Your task to perform on an android device: Open settings on Google Maps Image 0: 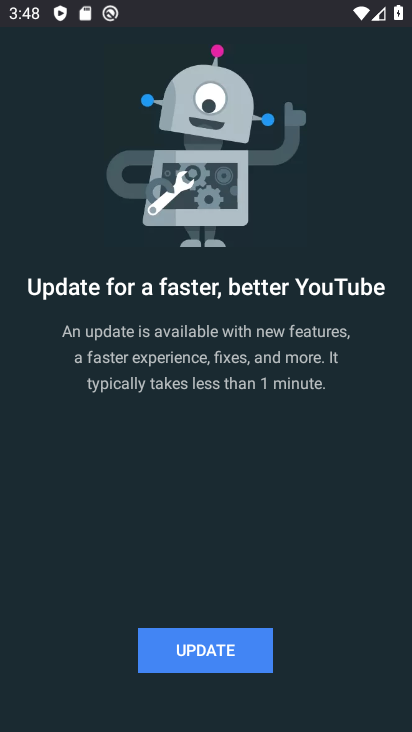
Step 0: press home button
Your task to perform on an android device: Open settings on Google Maps Image 1: 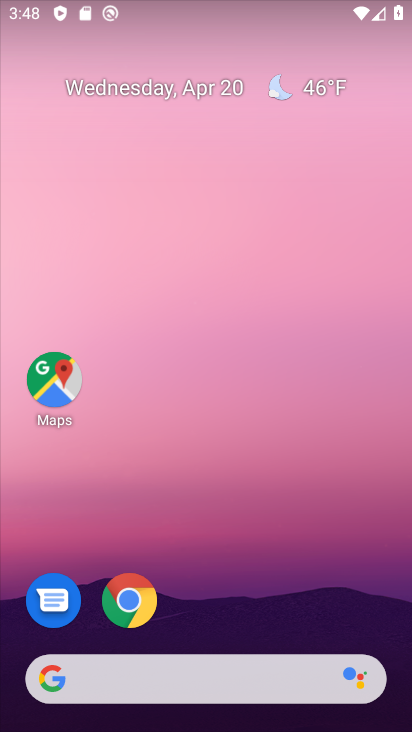
Step 1: click (53, 395)
Your task to perform on an android device: Open settings on Google Maps Image 2: 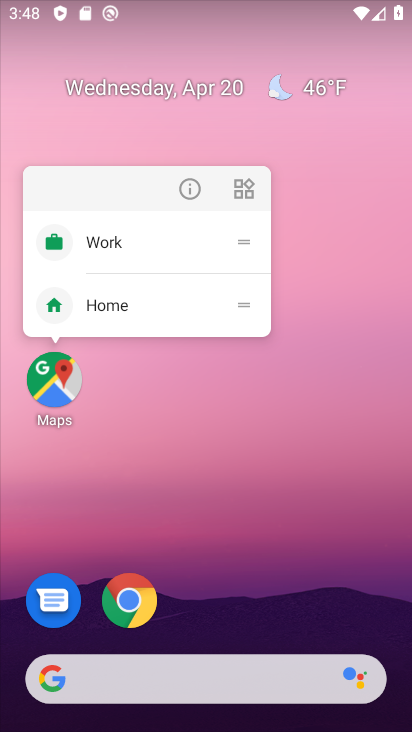
Step 2: click (62, 392)
Your task to perform on an android device: Open settings on Google Maps Image 3: 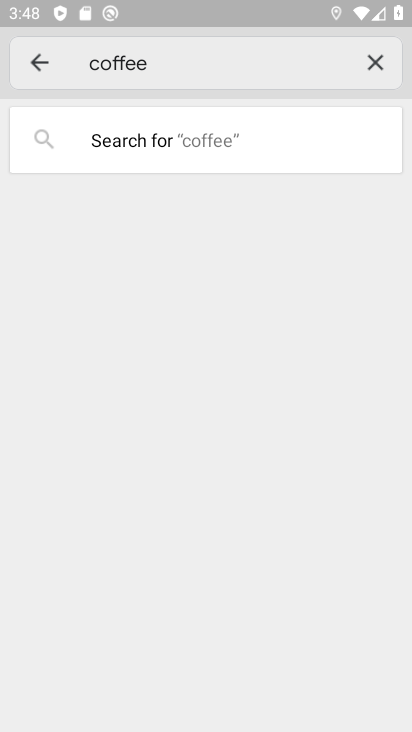
Step 3: click (375, 61)
Your task to perform on an android device: Open settings on Google Maps Image 4: 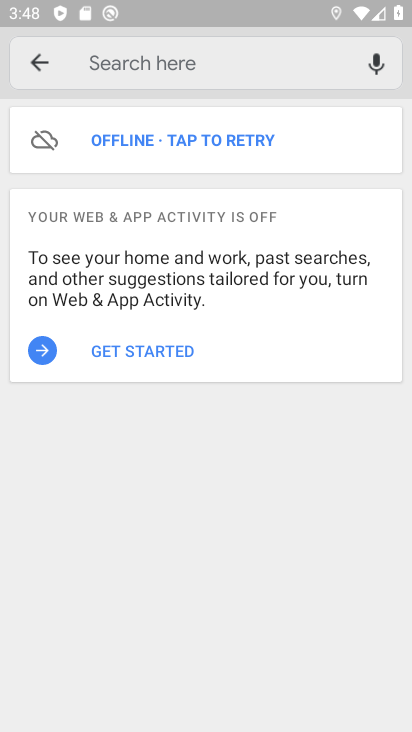
Step 4: click (39, 63)
Your task to perform on an android device: Open settings on Google Maps Image 5: 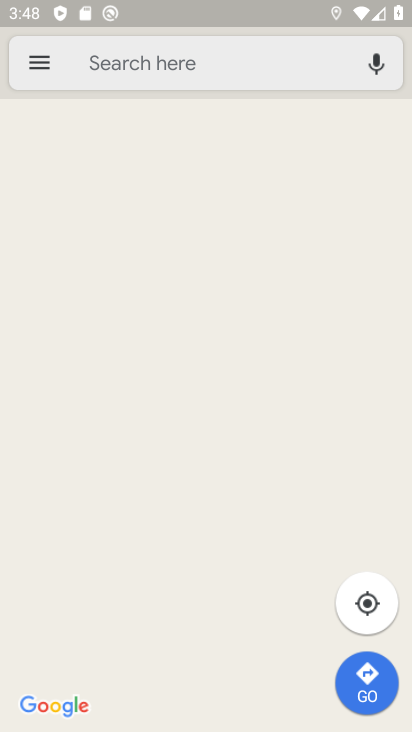
Step 5: click (43, 63)
Your task to perform on an android device: Open settings on Google Maps Image 6: 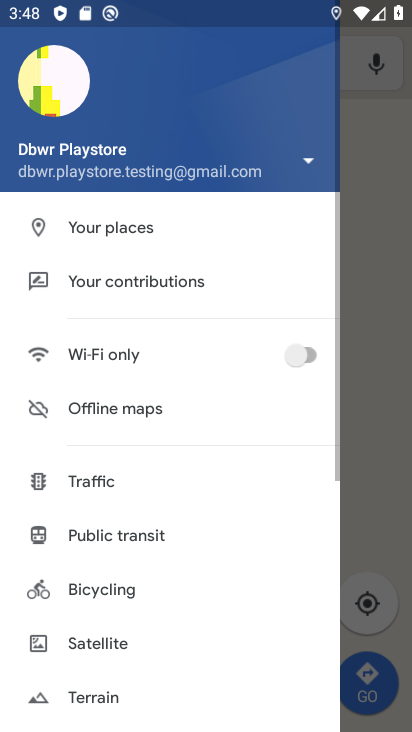
Step 6: drag from (176, 560) to (156, 203)
Your task to perform on an android device: Open settings on Google Maps Image 7: 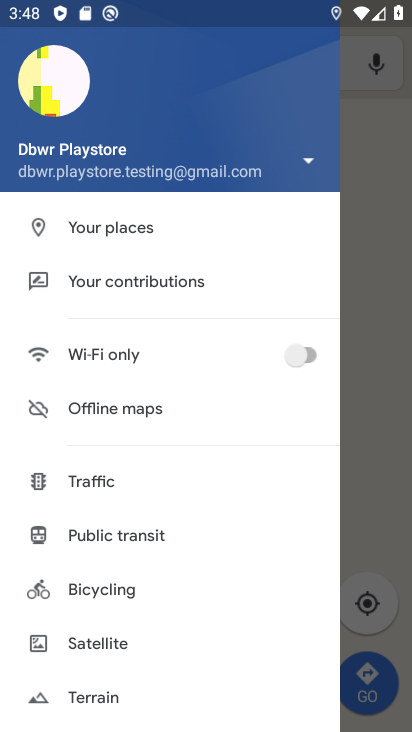
Step 7: drag from (149, 629) to (193, 148)
Your task to perform on an android device: Open settings on Google Maps Image 8: 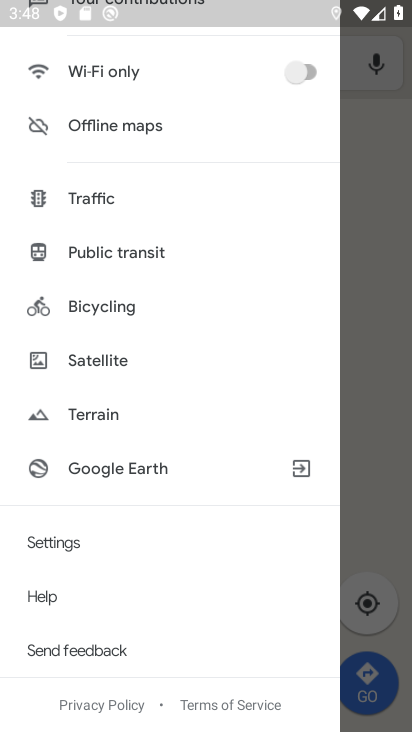
Step 8: click (92, 544)
Your task to perform on an android device: Open settings on Google Maps Image 9: 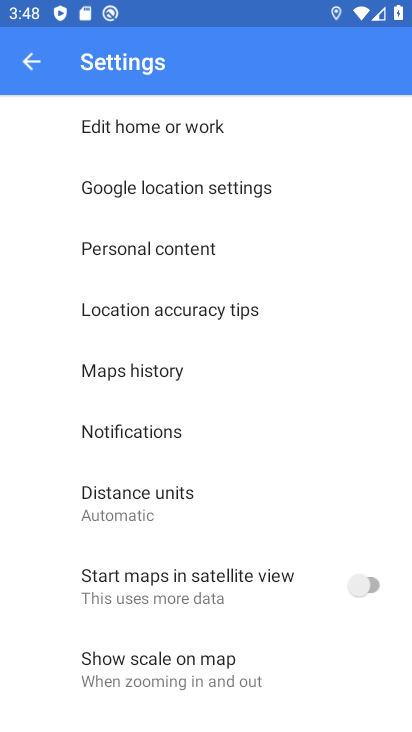
Step 9: task complete